Your task to perform on an android device: Do I have any events tomorrow? Image 0: 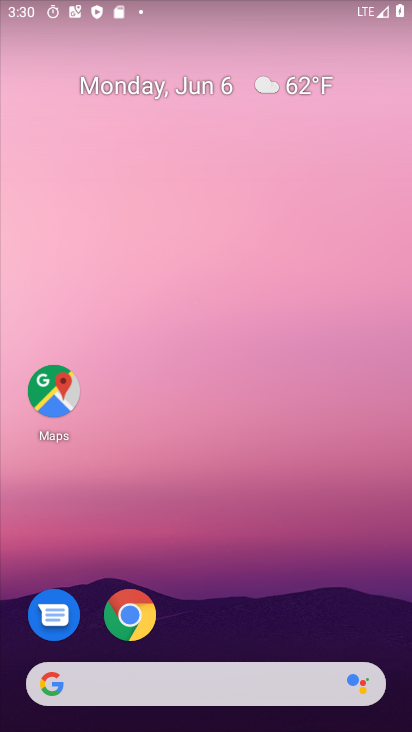
Step 0: drag from (259, 634) to (183, 115)
Your task to perform on an android device: Do I have any events tomorrow? Image 1: 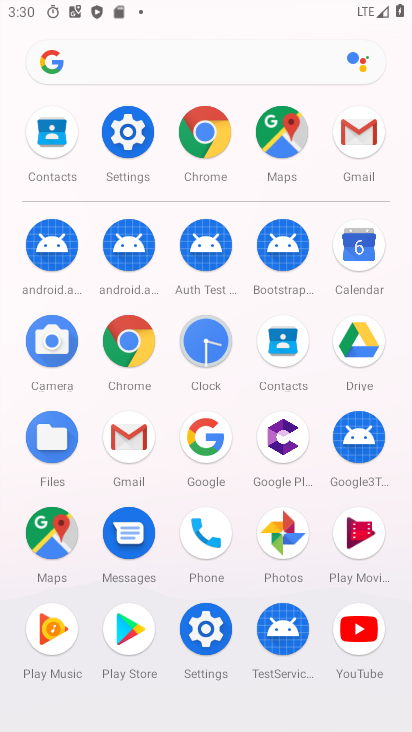
Step 1: click (355, 242)
Your task to perform on an android device: Do I have any events tomorrow? Image 2: 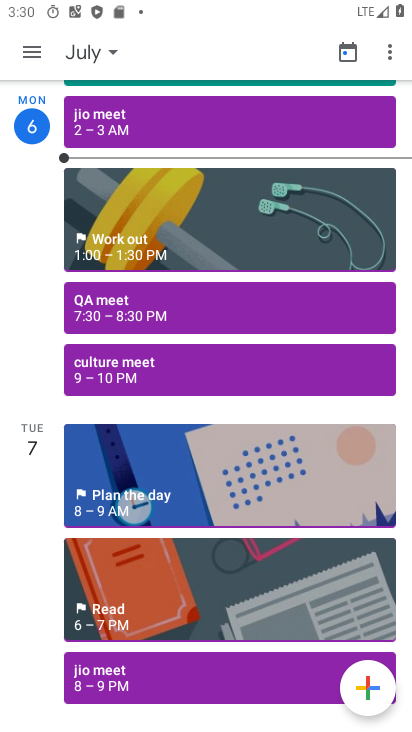
Step 2: click (107, 44)
Your task to perform on an android device: Do I have any events tomorrow? Image 3: 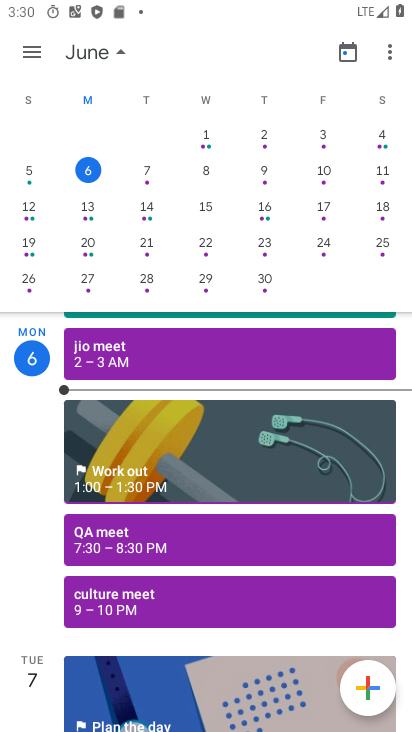
Step 3: click (147, 181)
Your task to perform on an android device: Do I have any events tomorrow? Image 4: 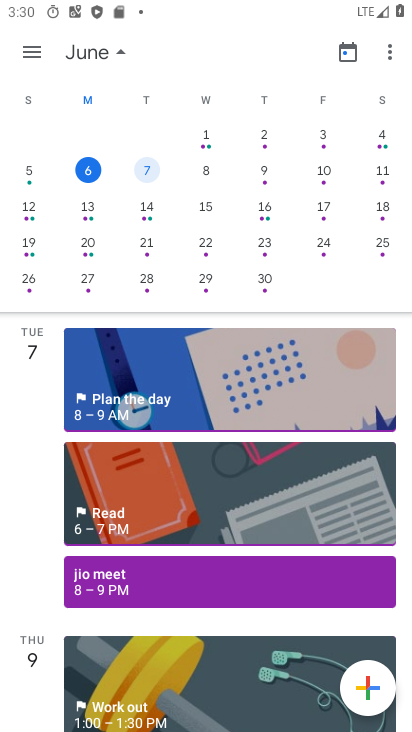
Step 4: task complete